Your task to perform on an android device: install app "Google Maps" Image 0: 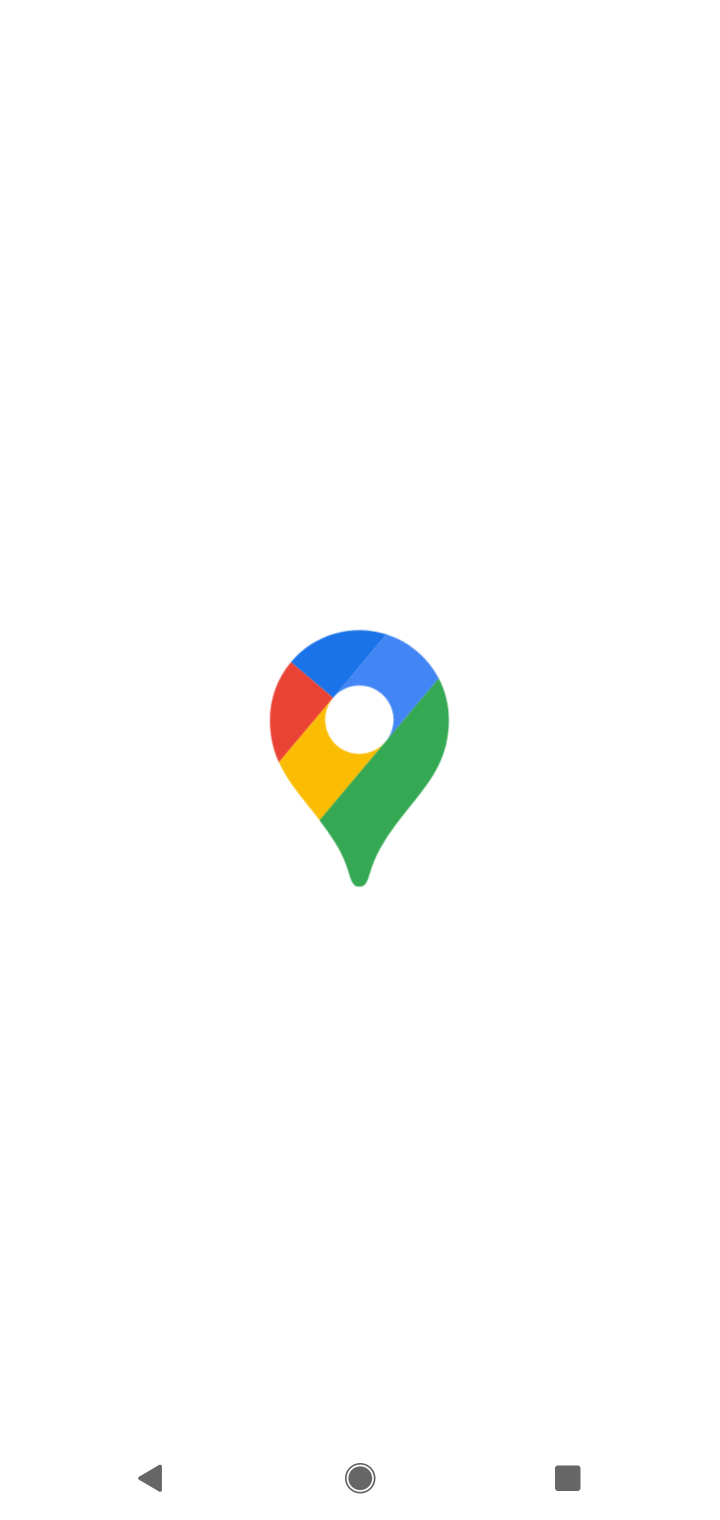
Step 0: press home button
Your task to perform on an android device: install app "Google Maps" Image 1: 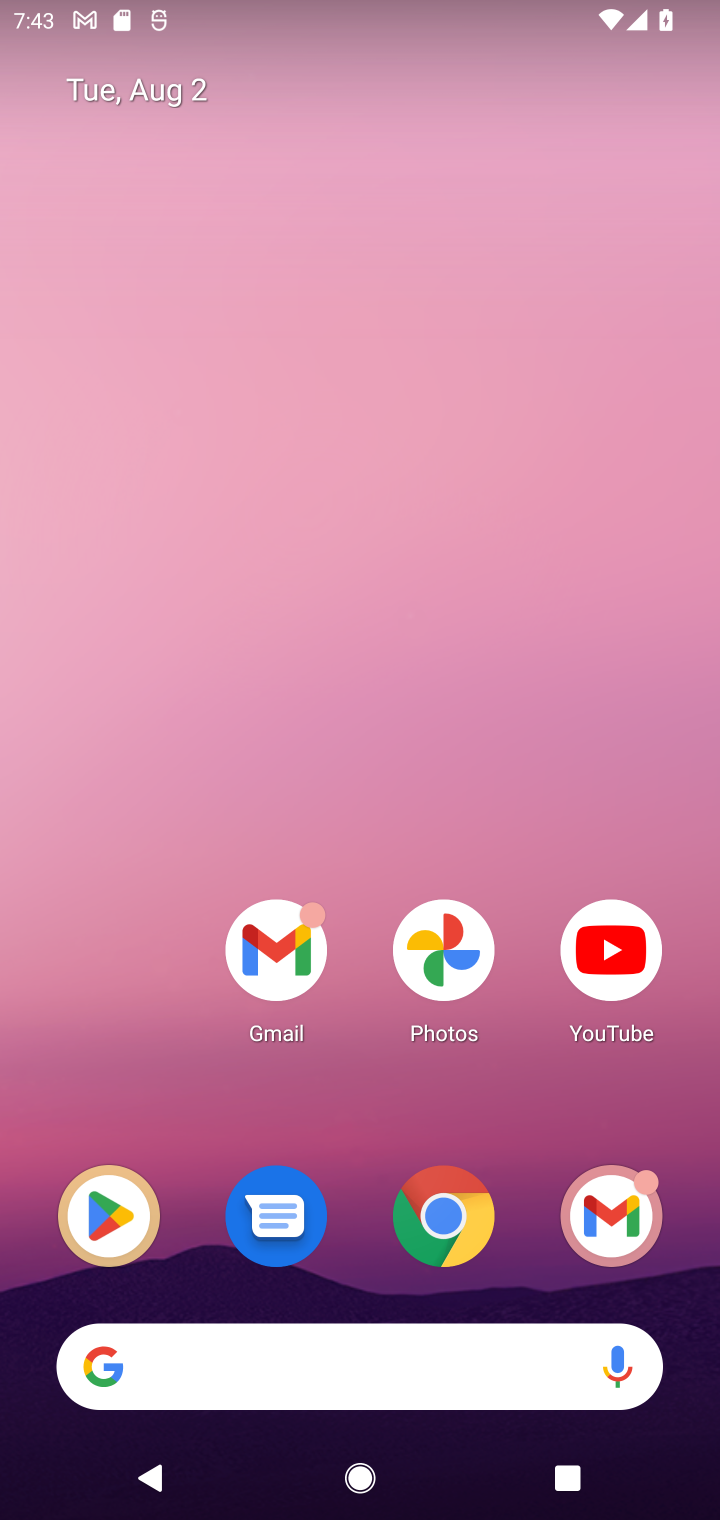
Step 1: press home button
Your task to perform on an android device: install app "Google Maps" Image 2: 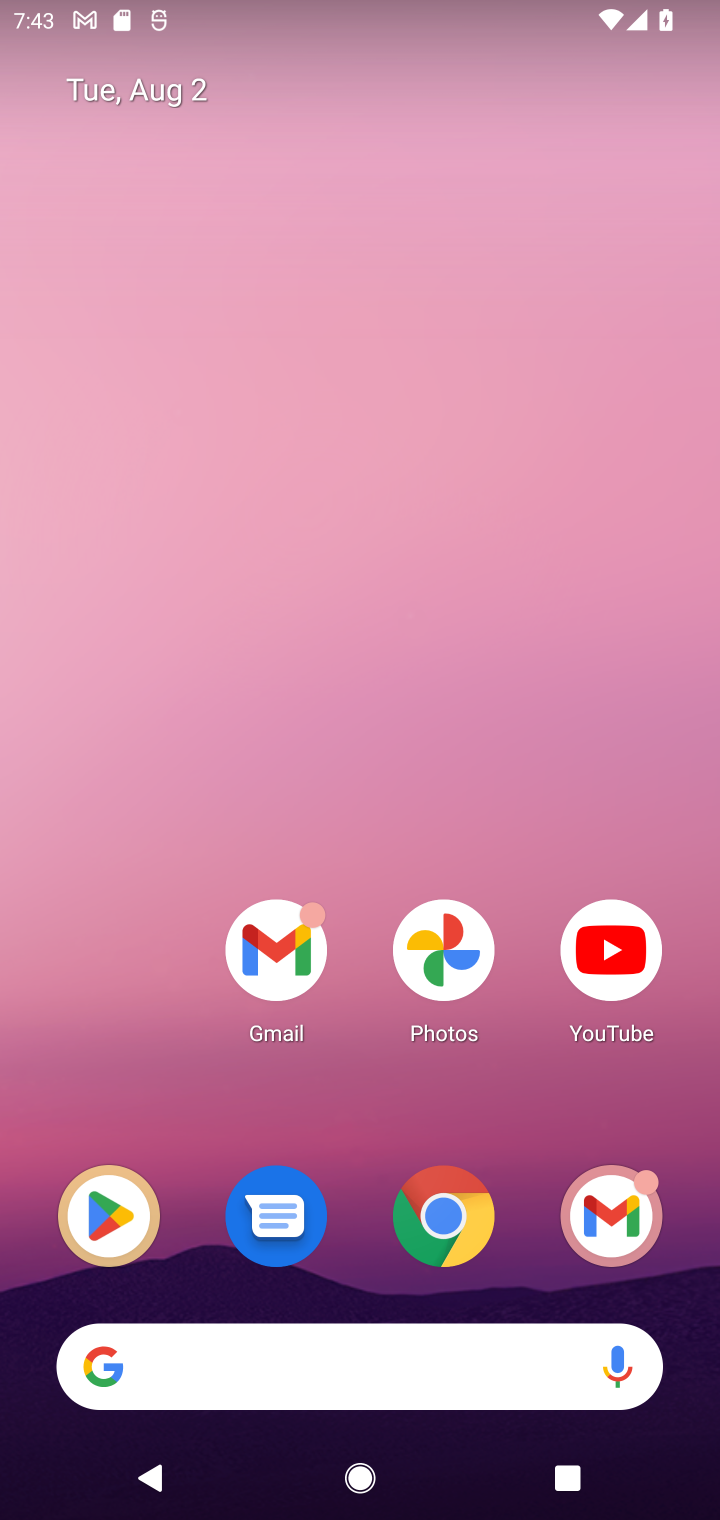
Step 2: click (124, 1204)
Your task to perform on an android device: install app "Google Maps" Image 3: 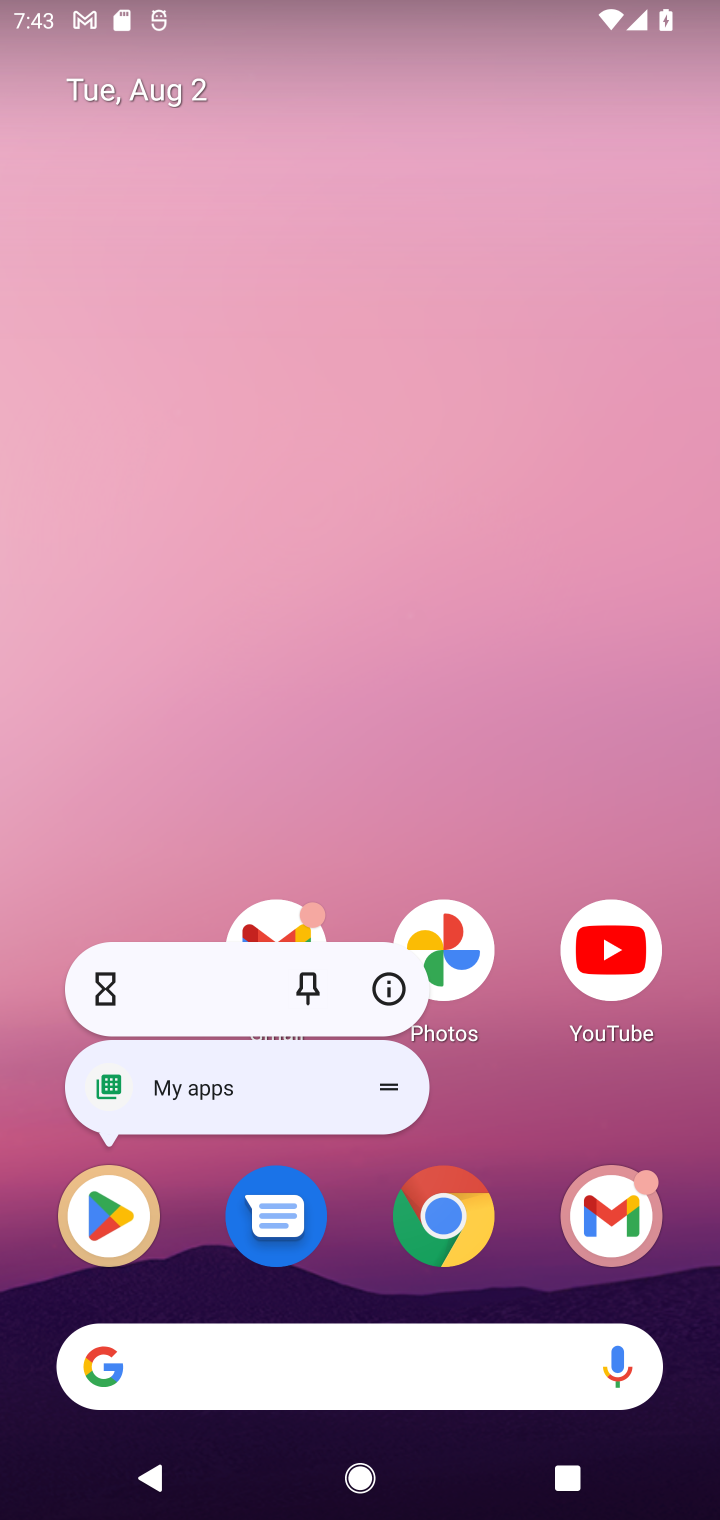
Step 3: click (96, 1231)
Your task to perform on an android device: install app "Google Maps" Image 4: 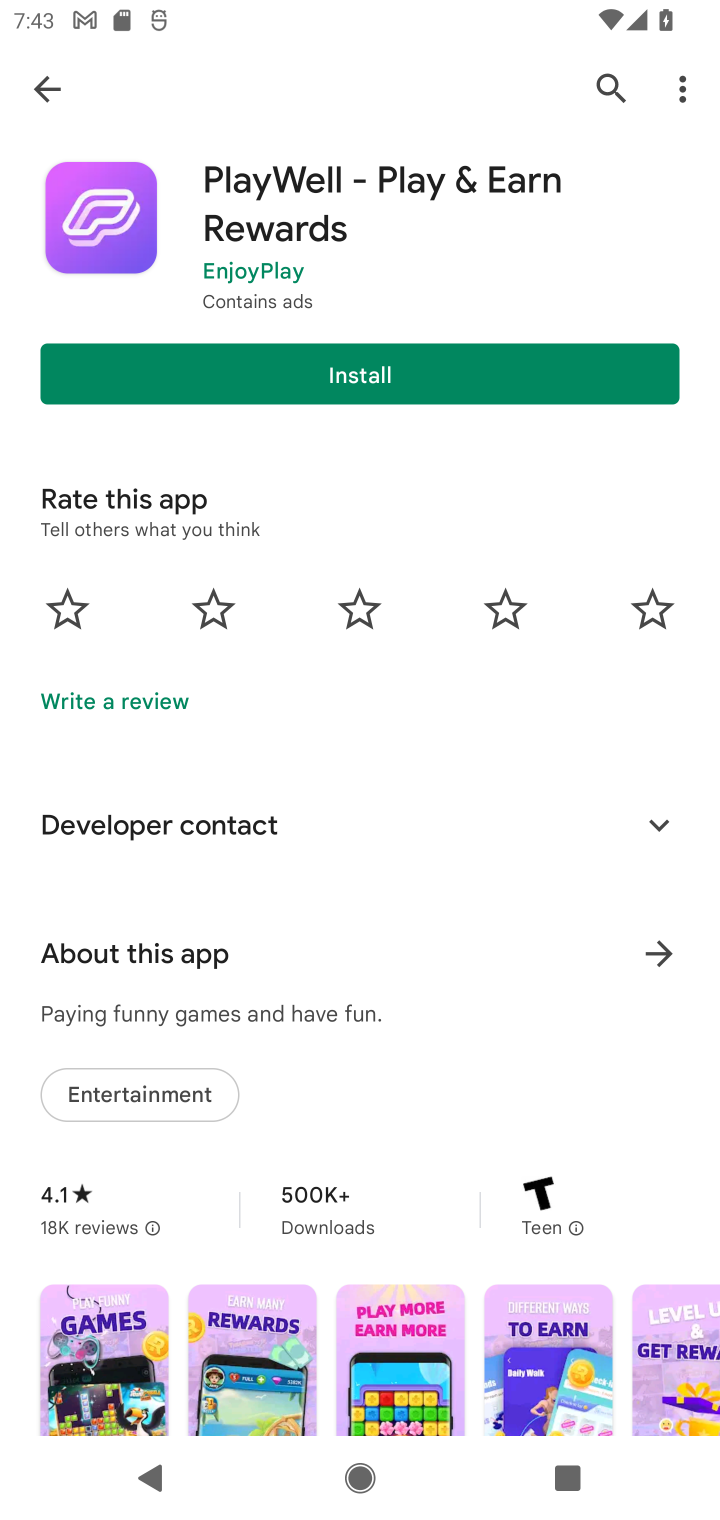
Step 4: click (597, 74)
Your task to perform on an android device: install app "Google Maps" Image 5: 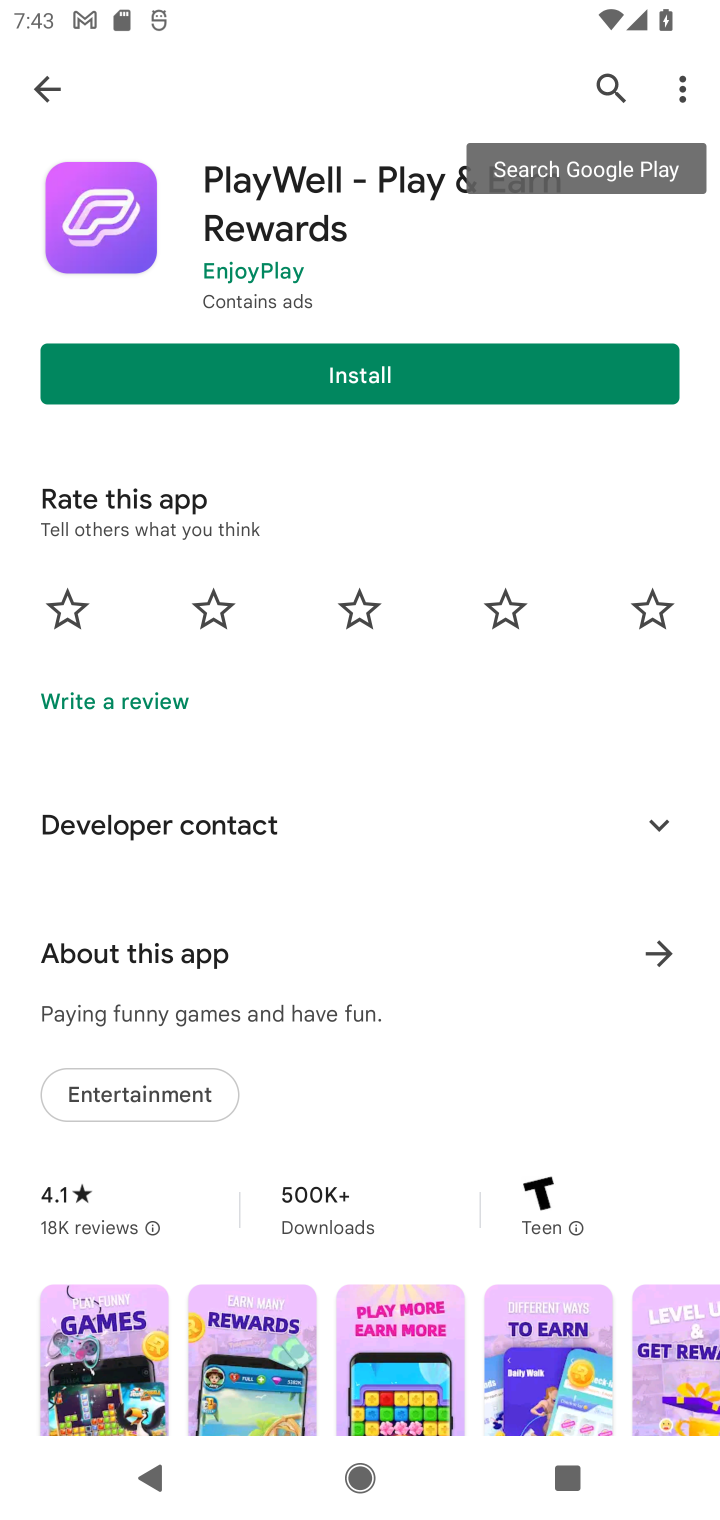
Step 5: click (595, 69)
Your task to perform on an android device: install app "Google Maps" Image 6: 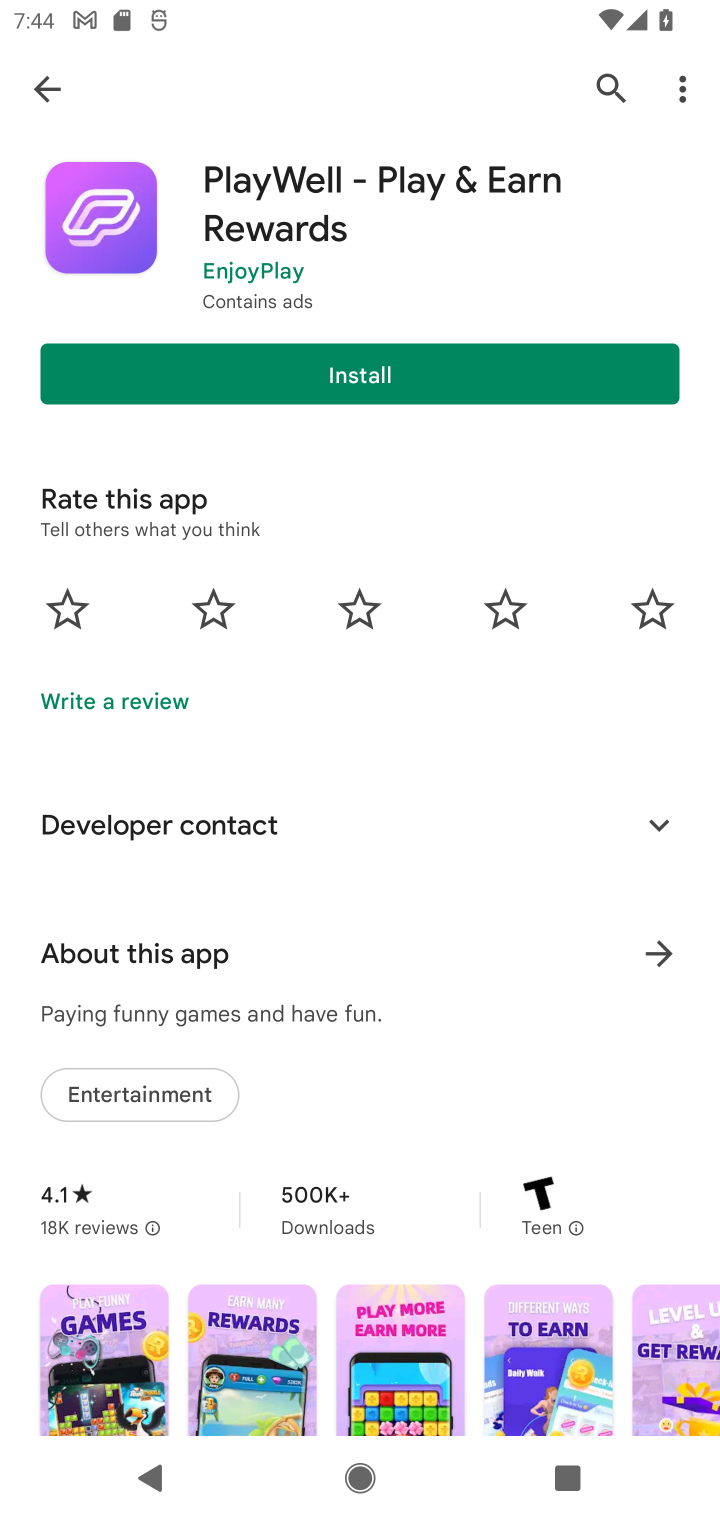
Step 6: click (55, 76)
Your task to perform on an android device: install app "Google Maps" Image 7: 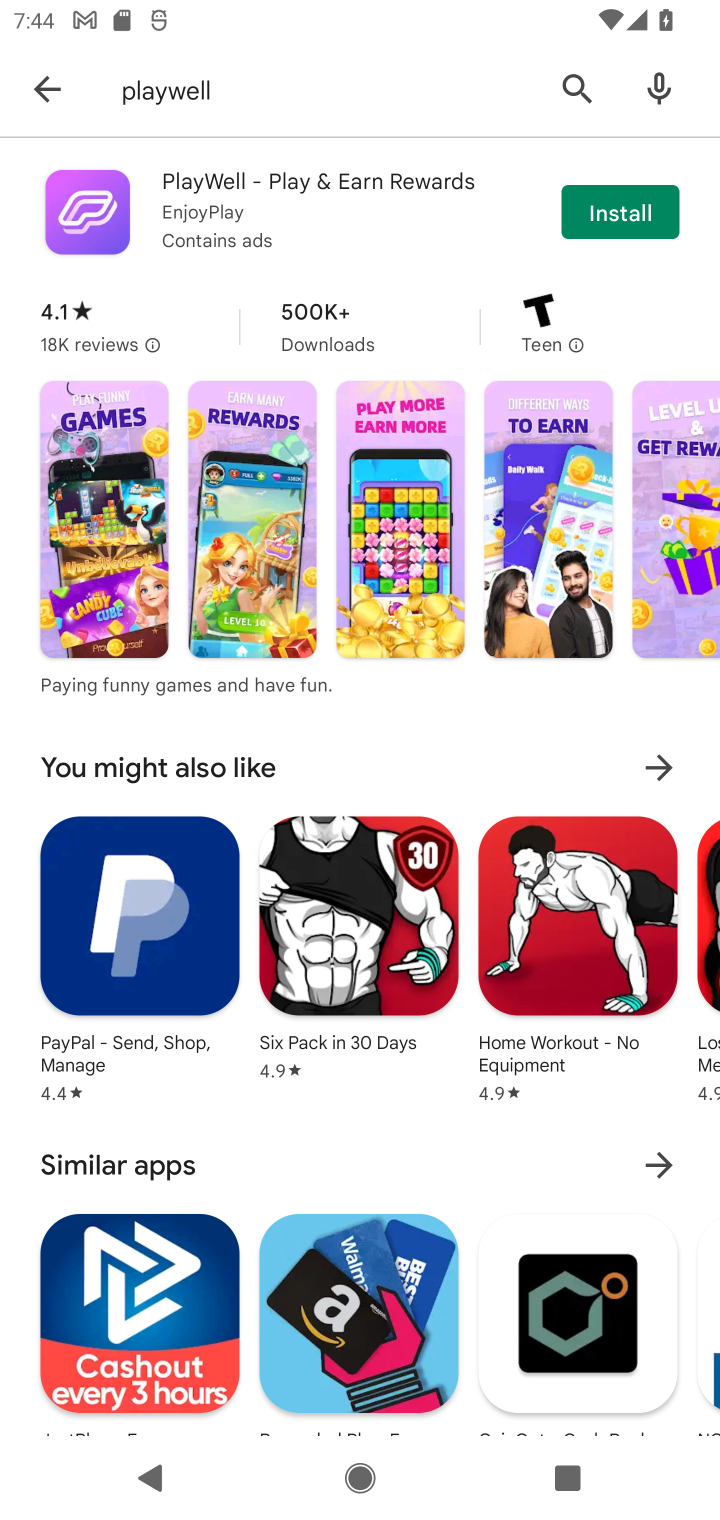
Step 7: click (563, 79)
Your task to perform on an android device: install app "Google Maps" Image 8: 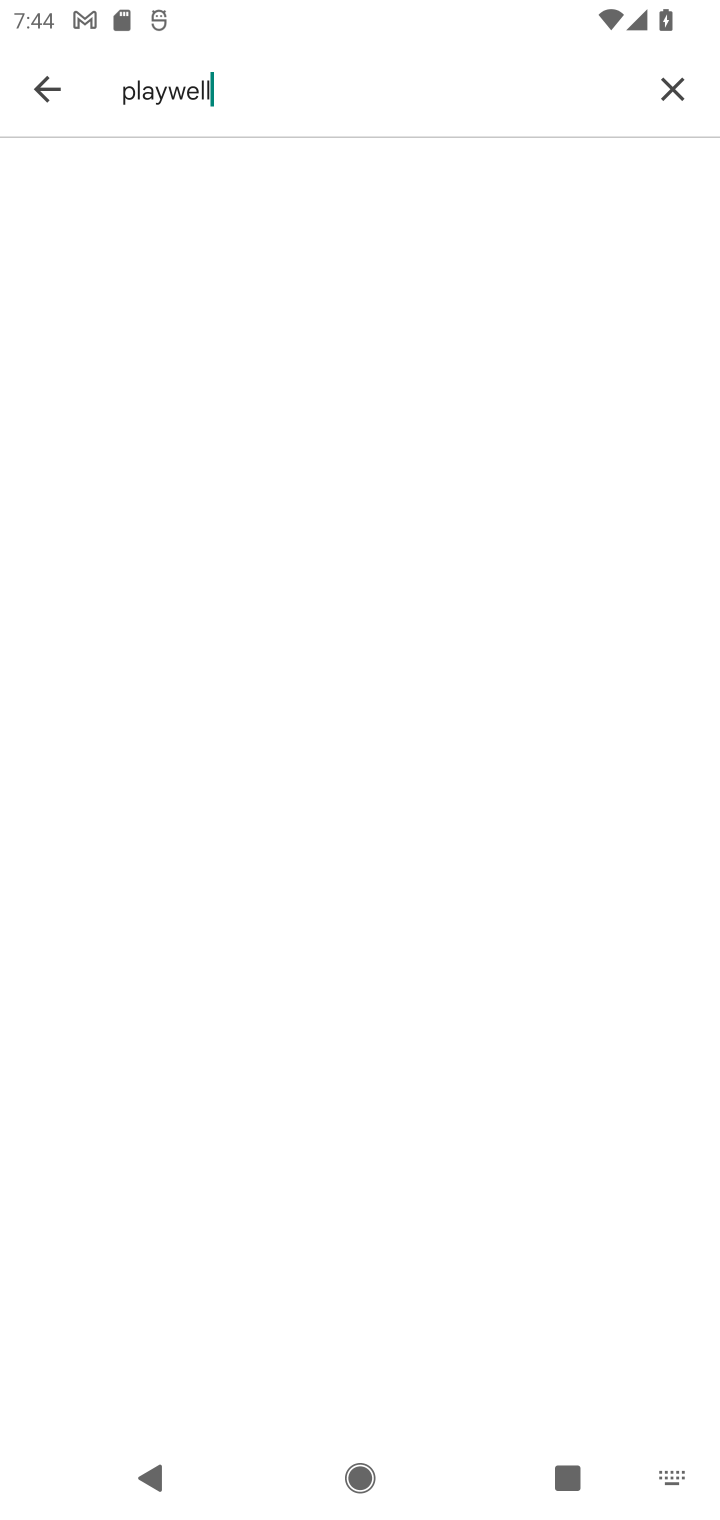
Step 8: click (572, 74)
Your task to perform on an android device: install app "Google Maps" Image 9: 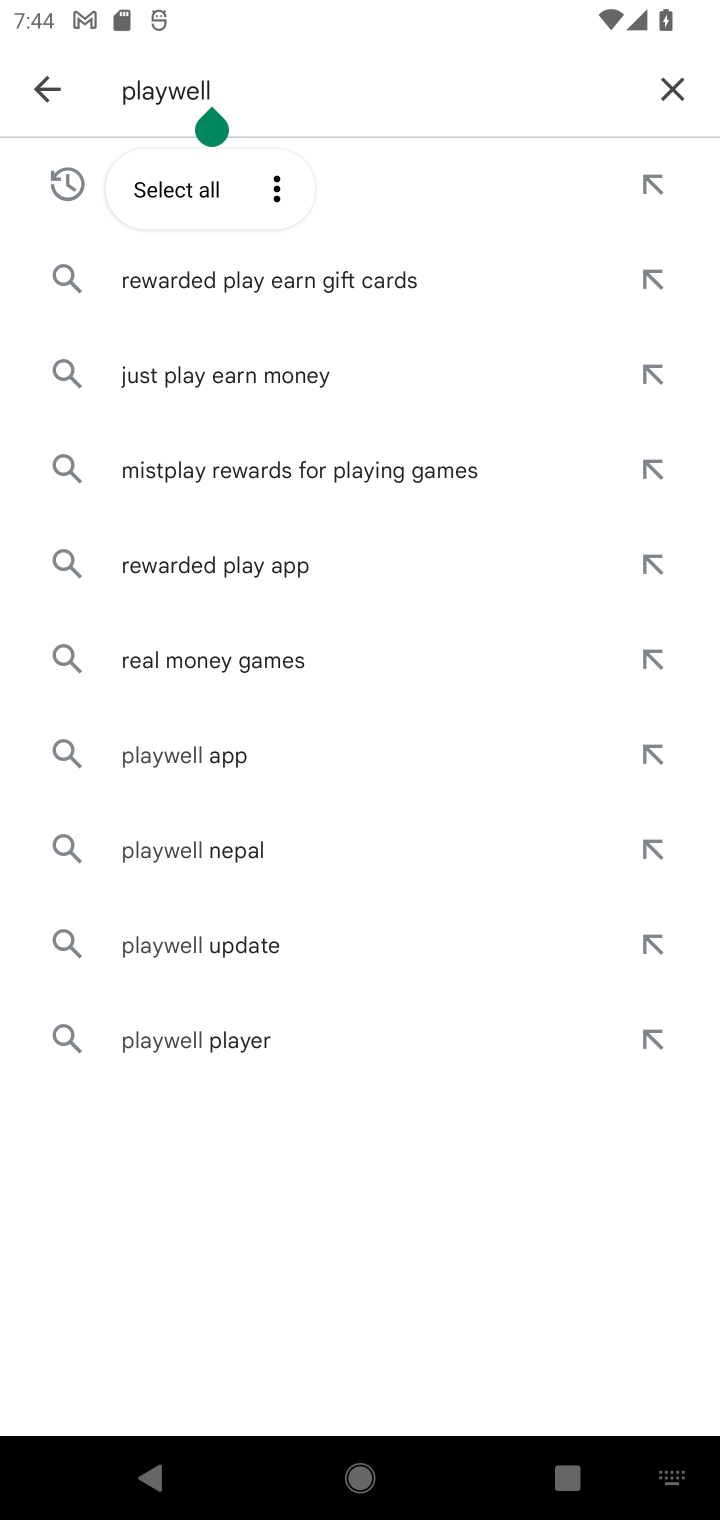
Step 9: click (677, 75)
Your task to perform on an android device: install app "Google Maps" Image 10: 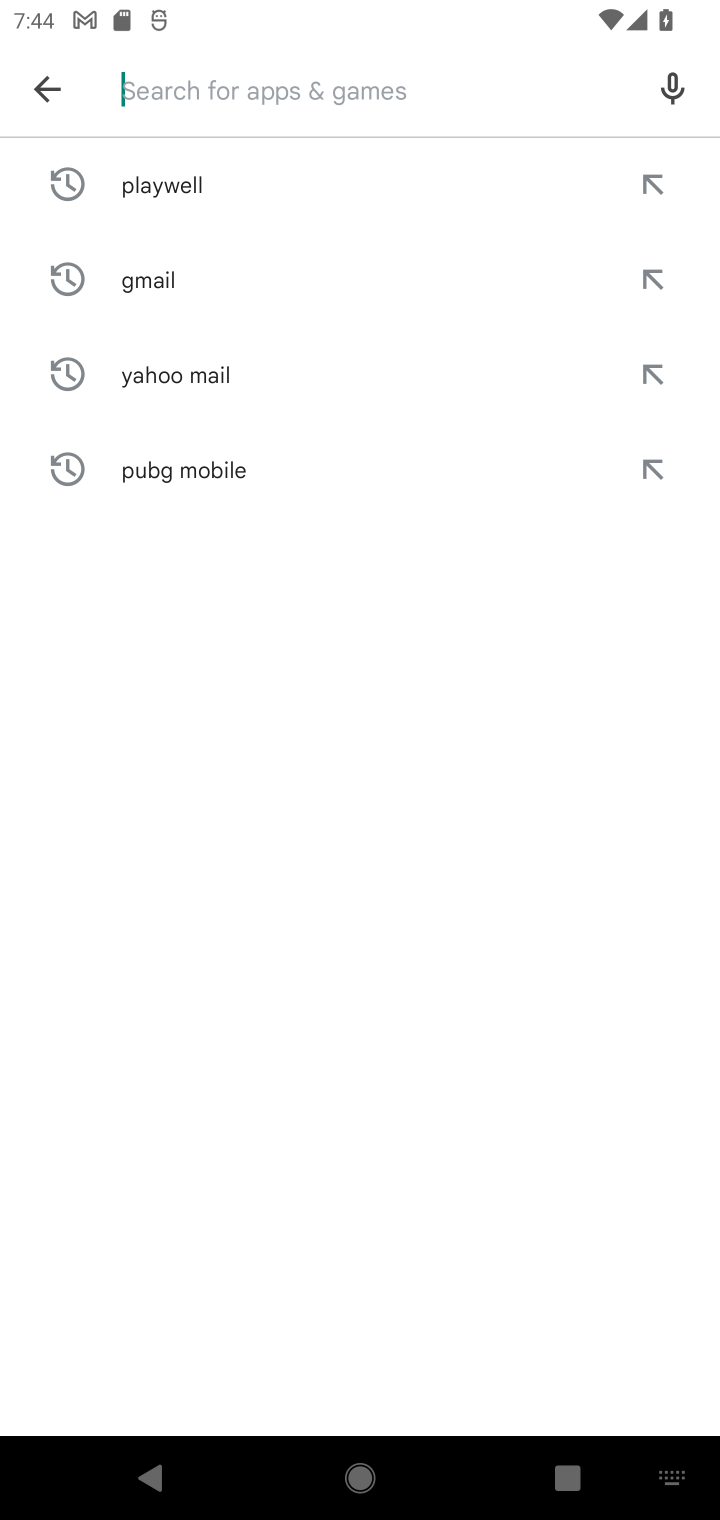
Step 10: type "Google Maps"
Your task to perform on an android device: install app "Google Maps" Image 11: 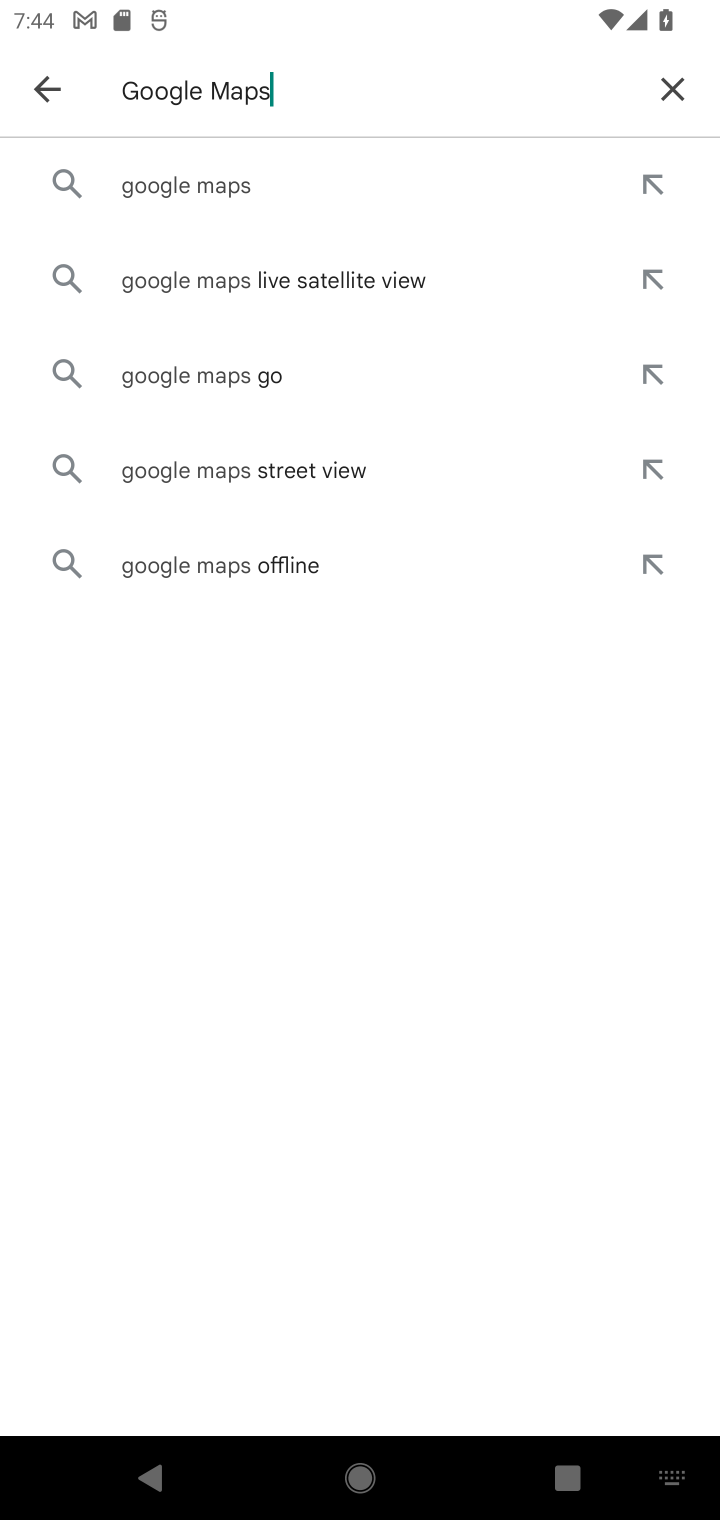
Step 11: click (215, 172)
Your task to perform on an android device: install app "Google Maps" Image 12: 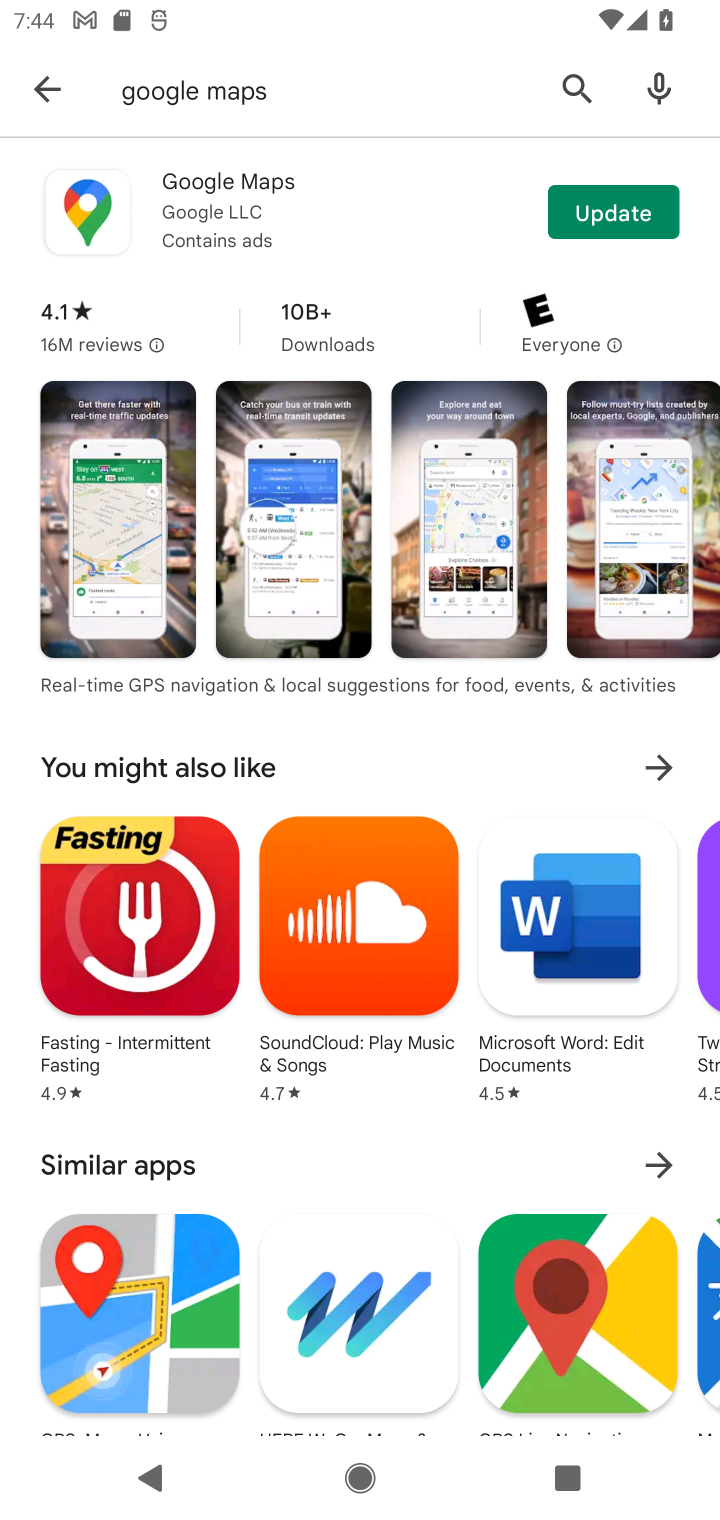
Step 12: click (215, 176)
Your task to perform on an android device: install app "Google Maps" Image 13: 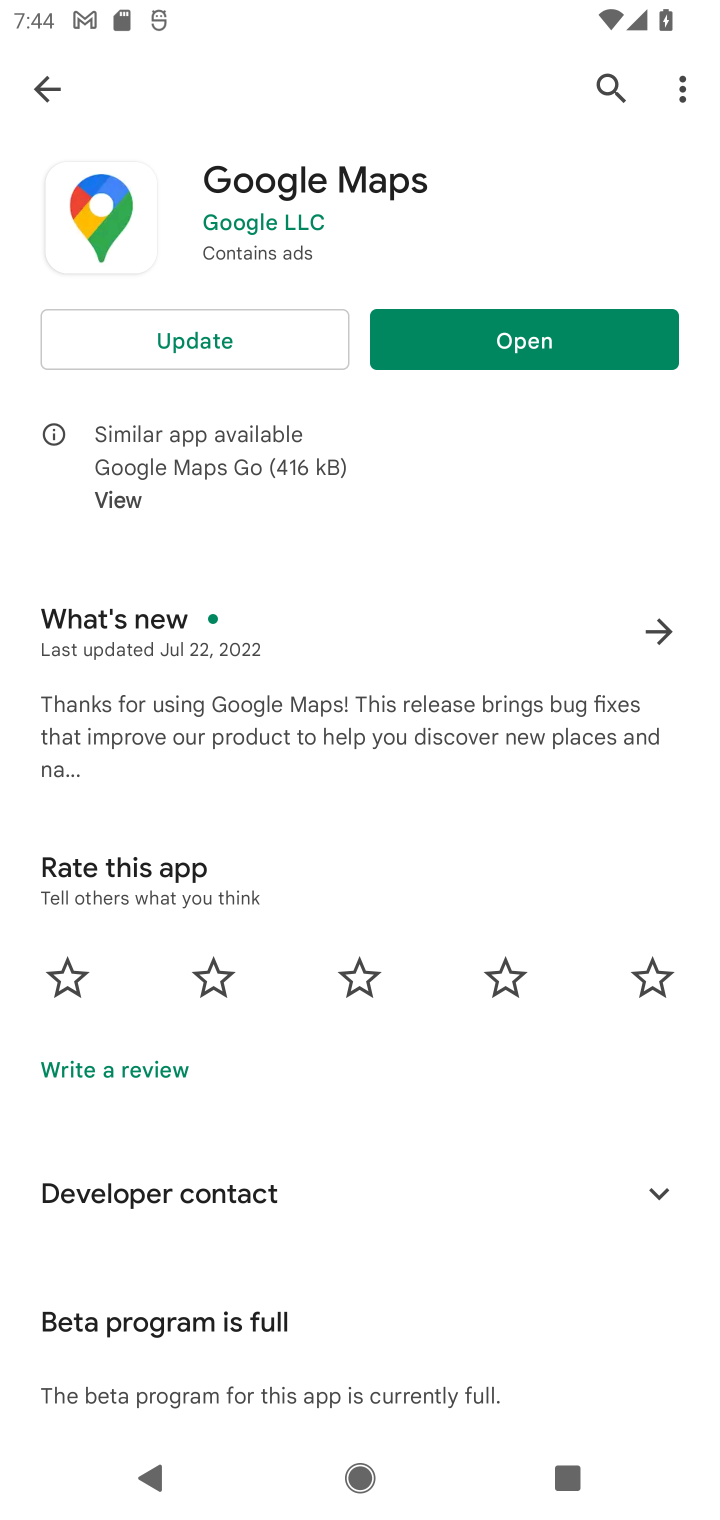
Step 13: task complete